Your task to perform on an android device: snooze an email in the gmail app Image 0: 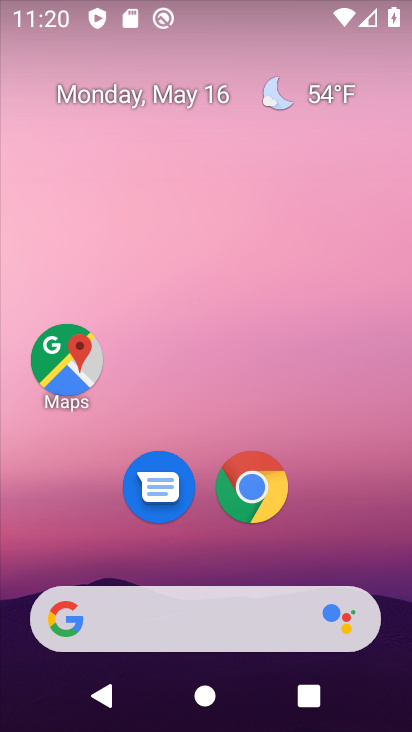
Step 0: drag from (205, 519) to (260, 65)
Your task to perform on an android device: snooze an email in the gmail app Image 1: 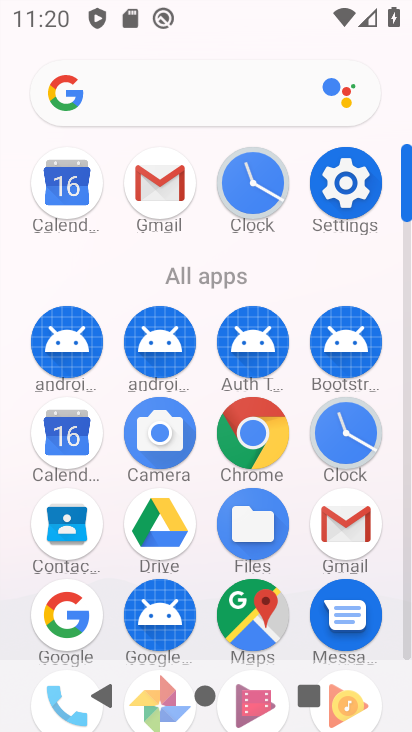
Step 1: click (156, 182)
Your task to perform on an android device: snooze an email in the gmail app Image 2: 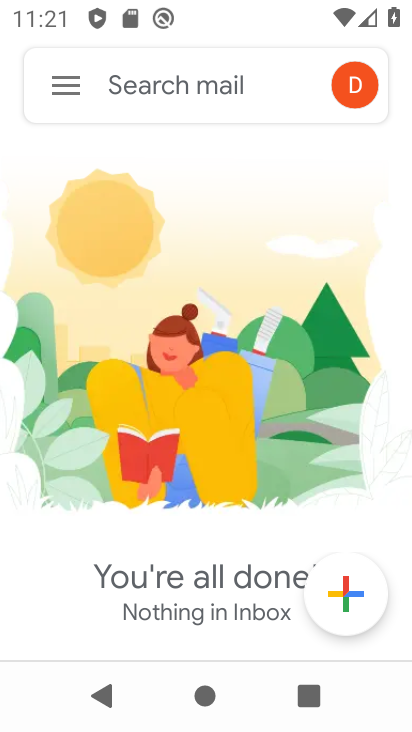
Step 2: click (43, 80)
Your task to perform on an android device: snooze an email in the gmail app Image 3: 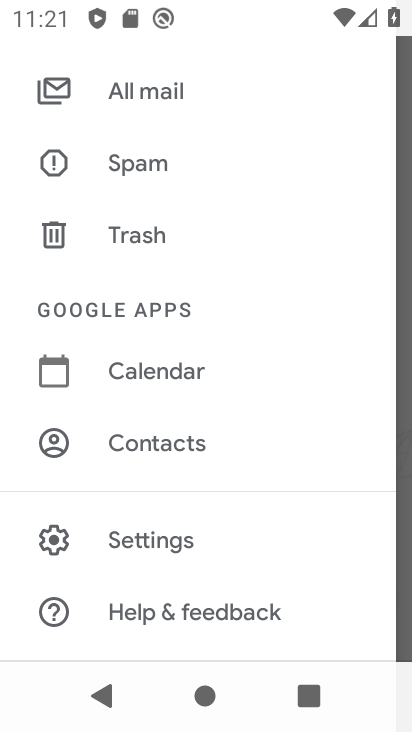
Step 3: click (148, 89)
Your task to perform on an android device: snooze an email in the gmail app Image 4: 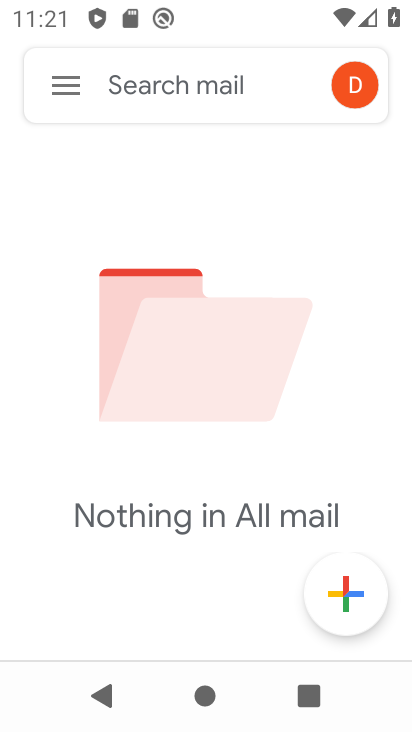
Step 4: task complete